Your task to perform on an android device: What is the news today? Image 0: 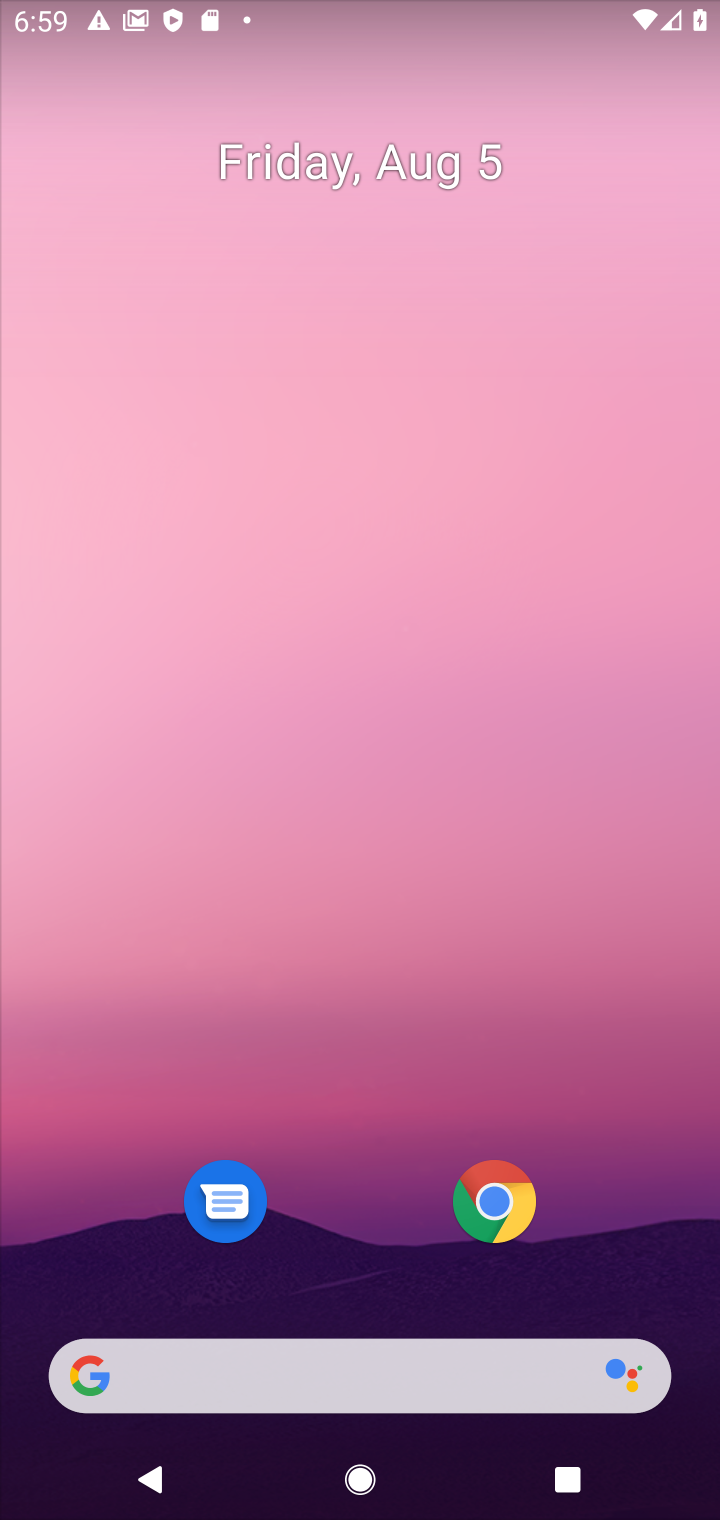
Step 0: press home button
Your task to perform on an android device: What is the news today? Image 1: 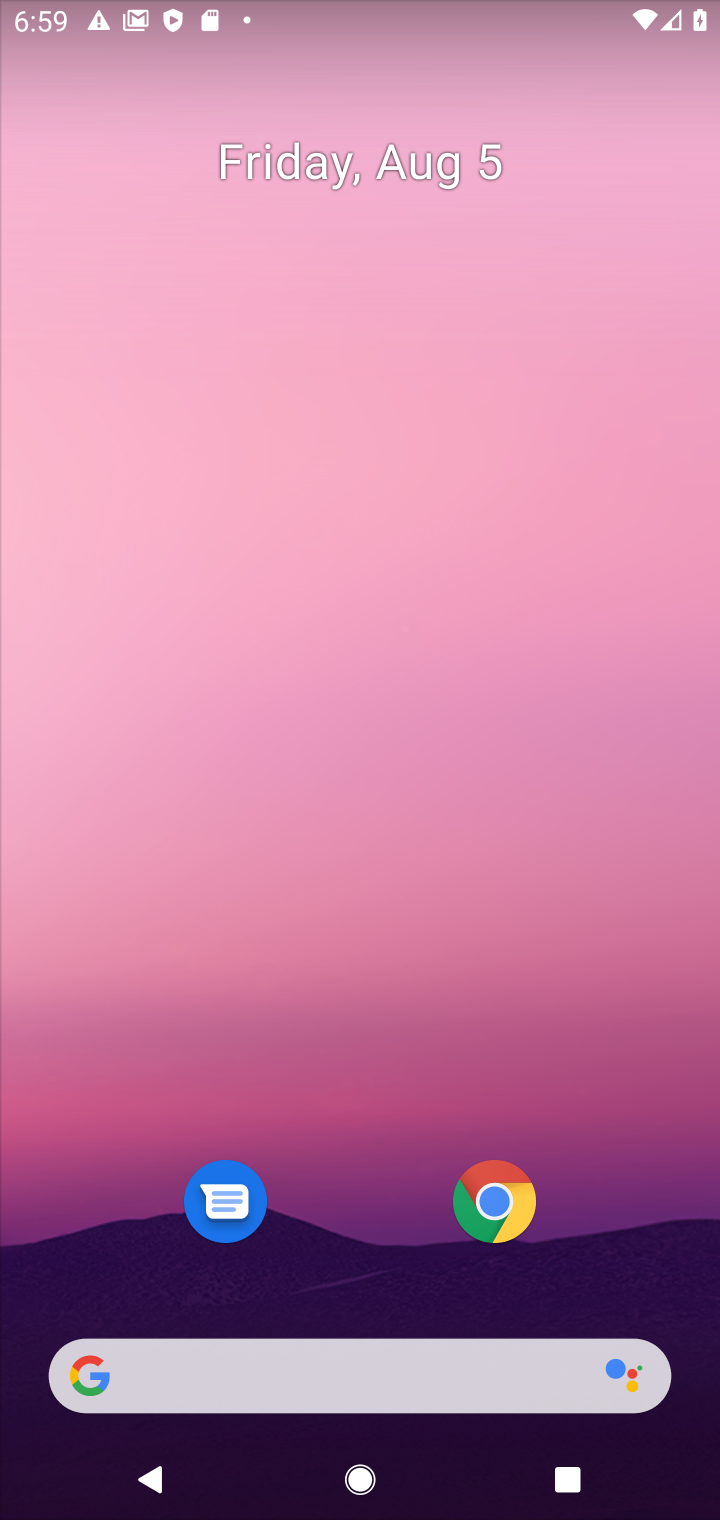
Step 1: drag from (355, 888) to (379, 652)
Your task to perform on an android device: What is the news today? Image 2: 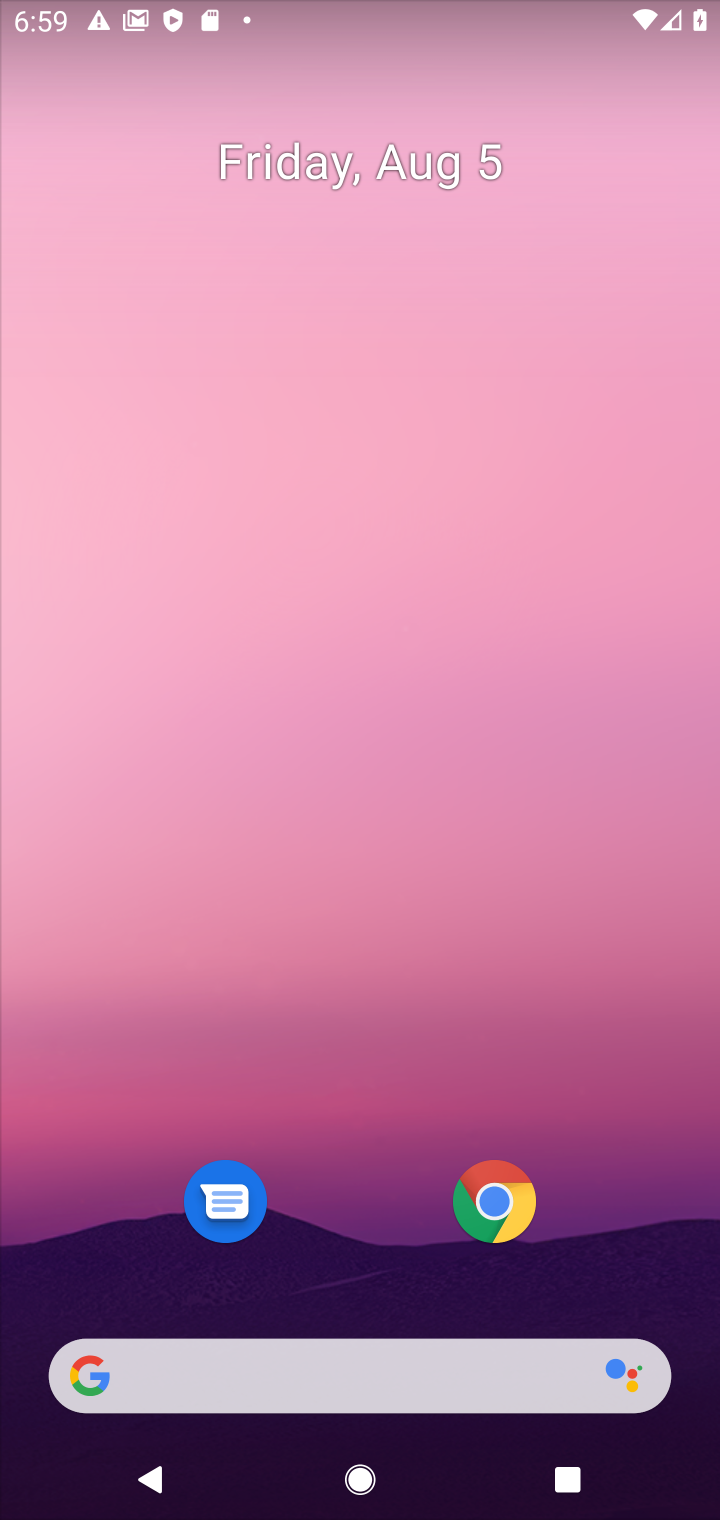
Step 2: click (294, 1394)
Your task to perform on an android device: What is the news today? Image 3: 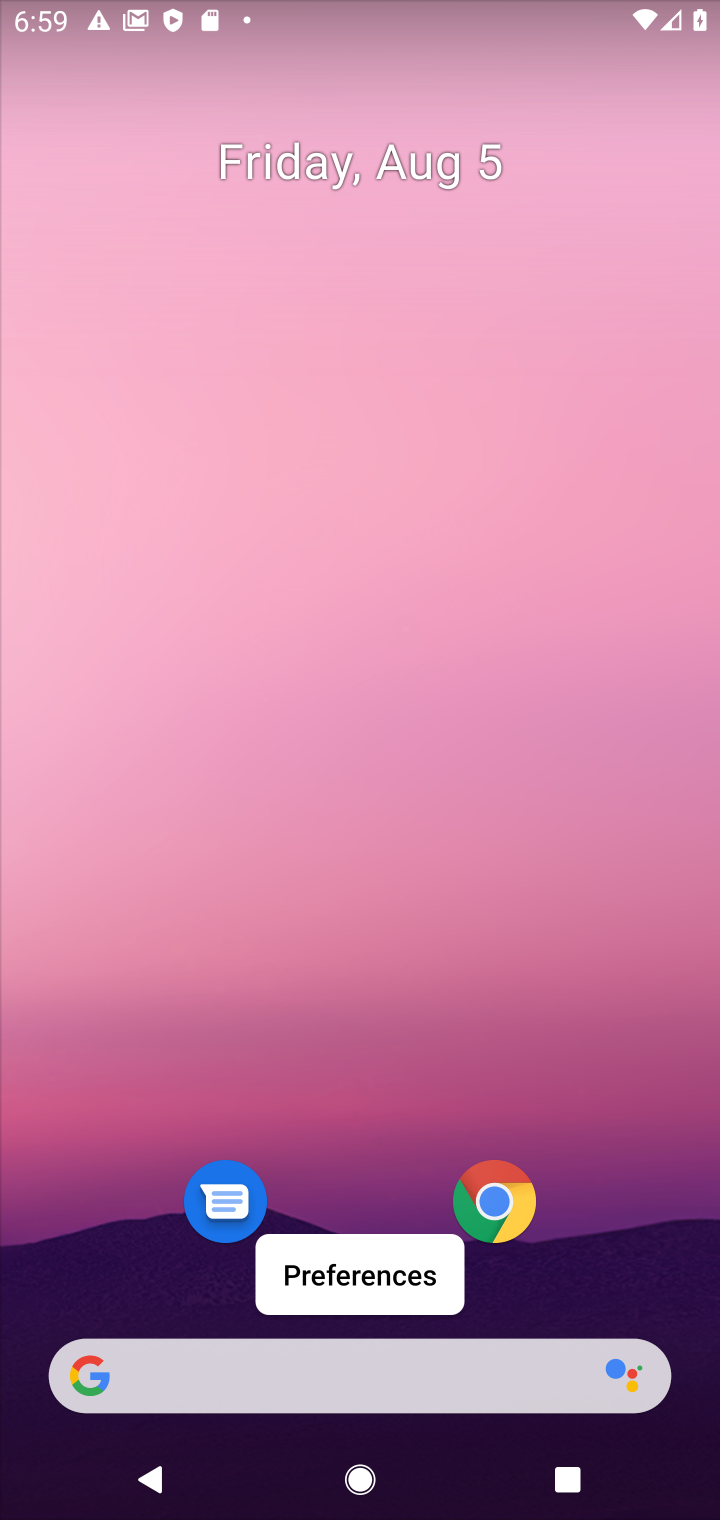
Step 3: click (368, 1013)
Your task to perform on an android device: What is the news today? Image 4: 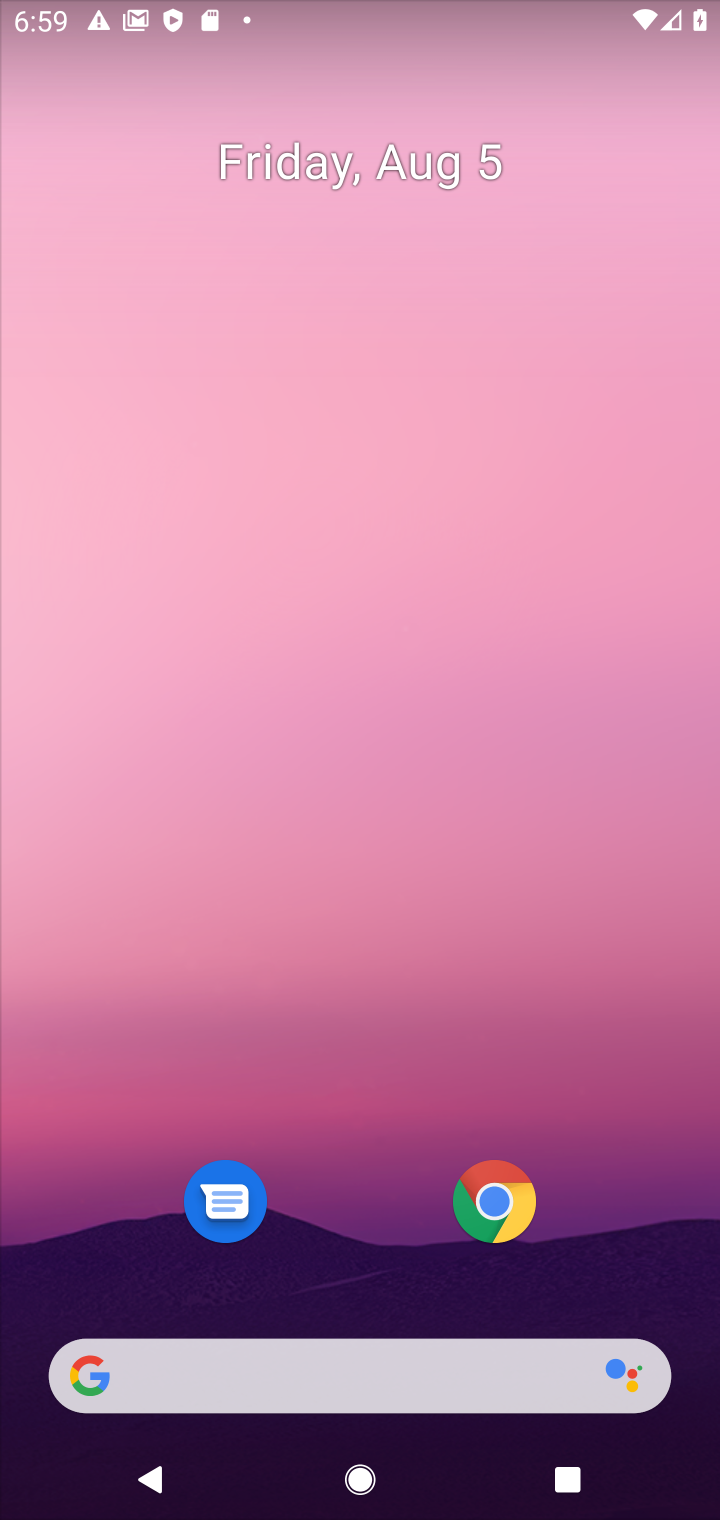
Step 4: drag from (323, 1408) to (435, 485)
Your task to perform on an android device: What is the news today? Image 5: 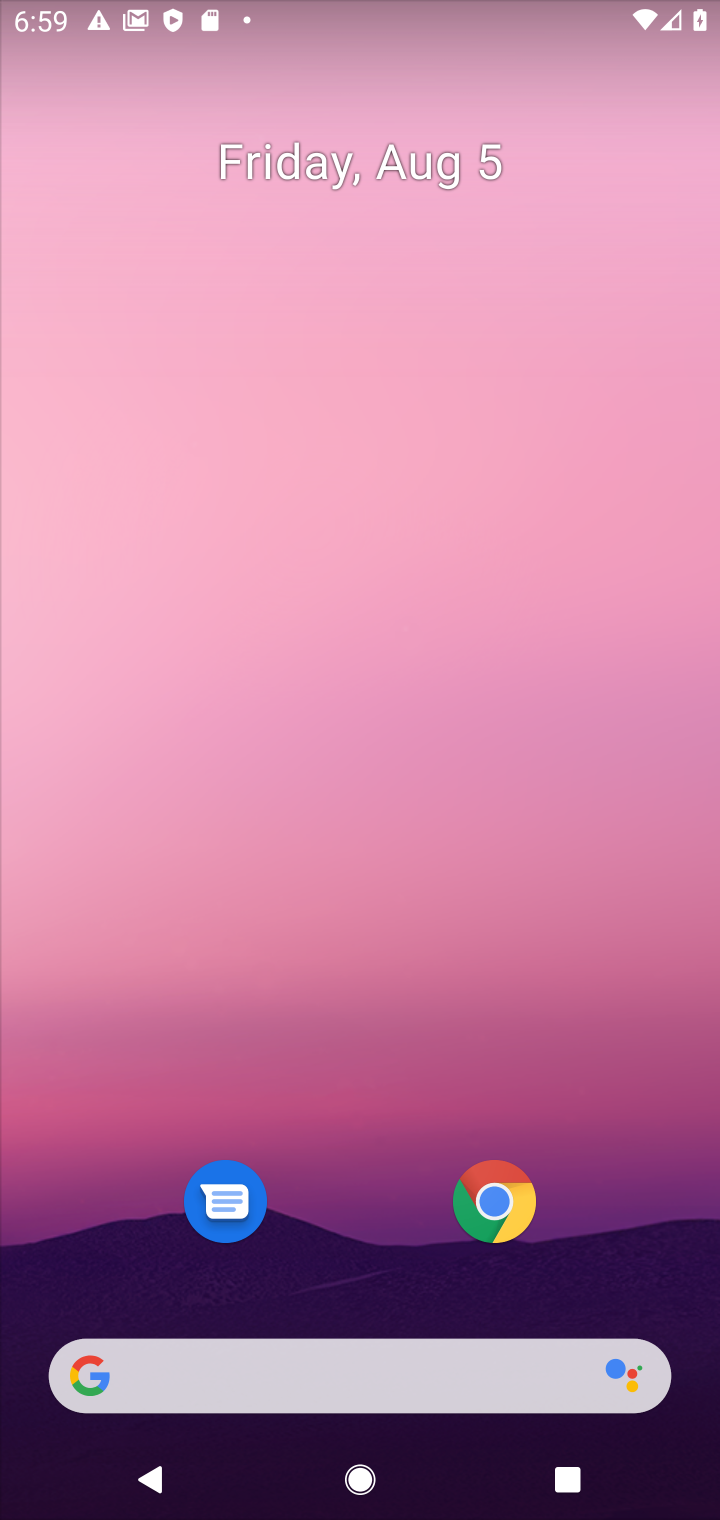
Step 5: drag from (386, 1396) to (449, 492)
Your task to perform on an android device: What is the news today? Image 6: 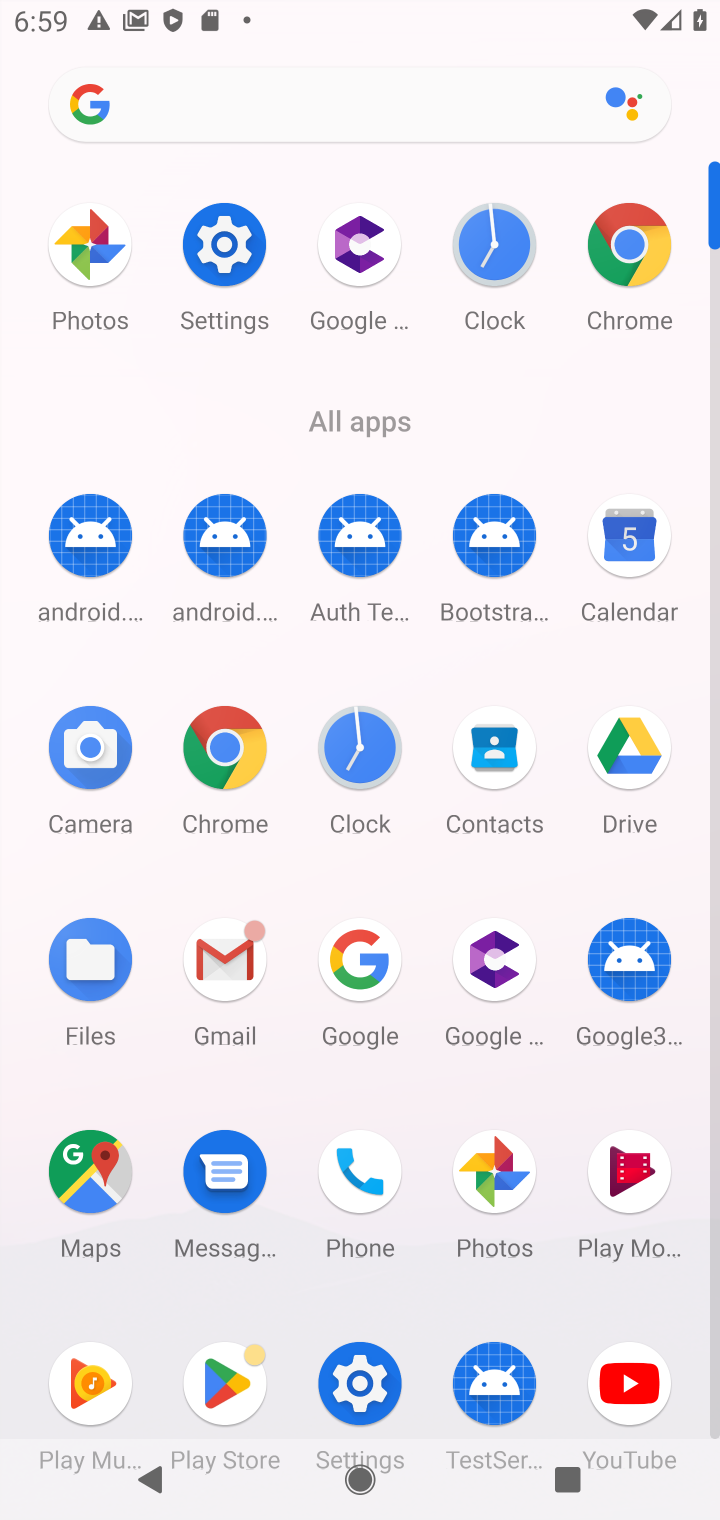
Step 6: click (258, 125)
Your task to perform on an android device: What is the news today? Image 7: 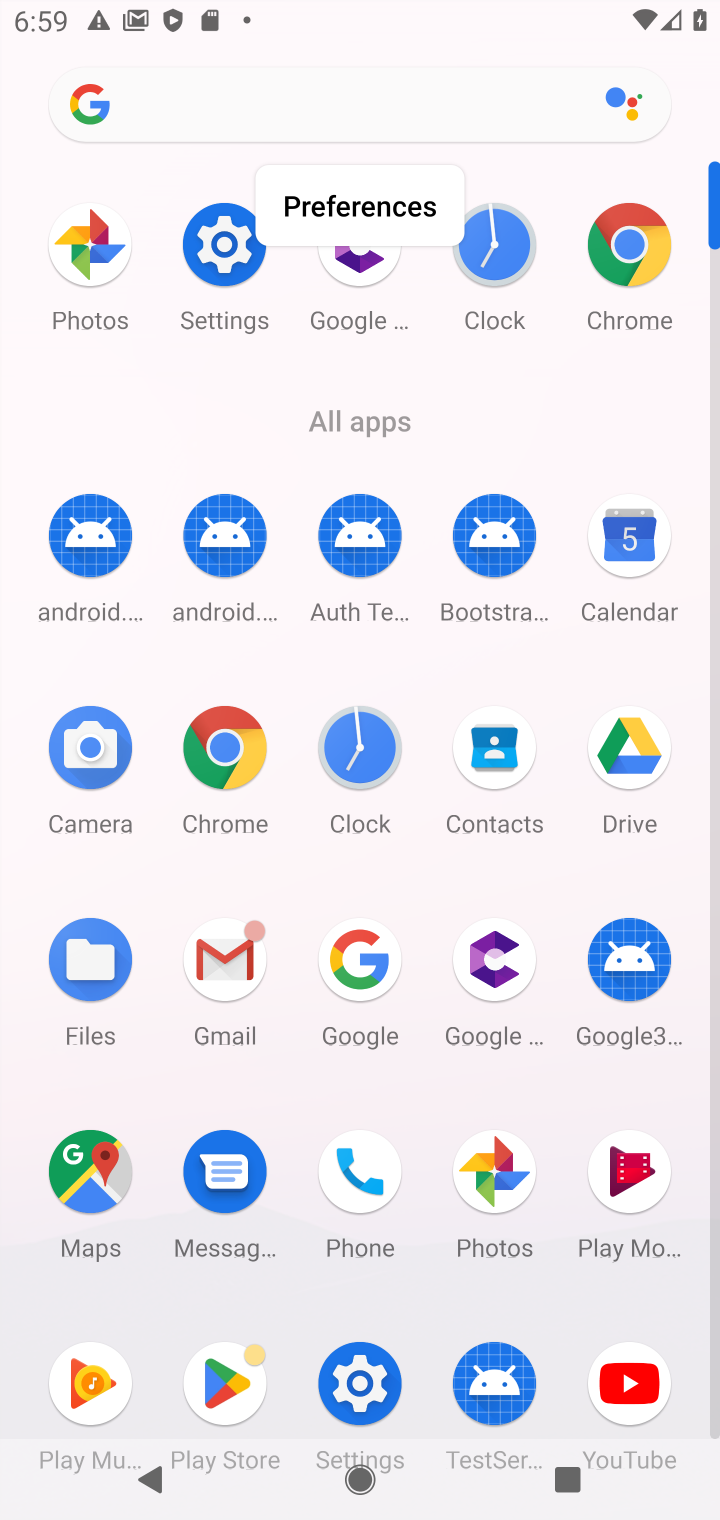
Step 7: click (222, 106)
Your task to perform on an android device: What is the news today? Image 8: 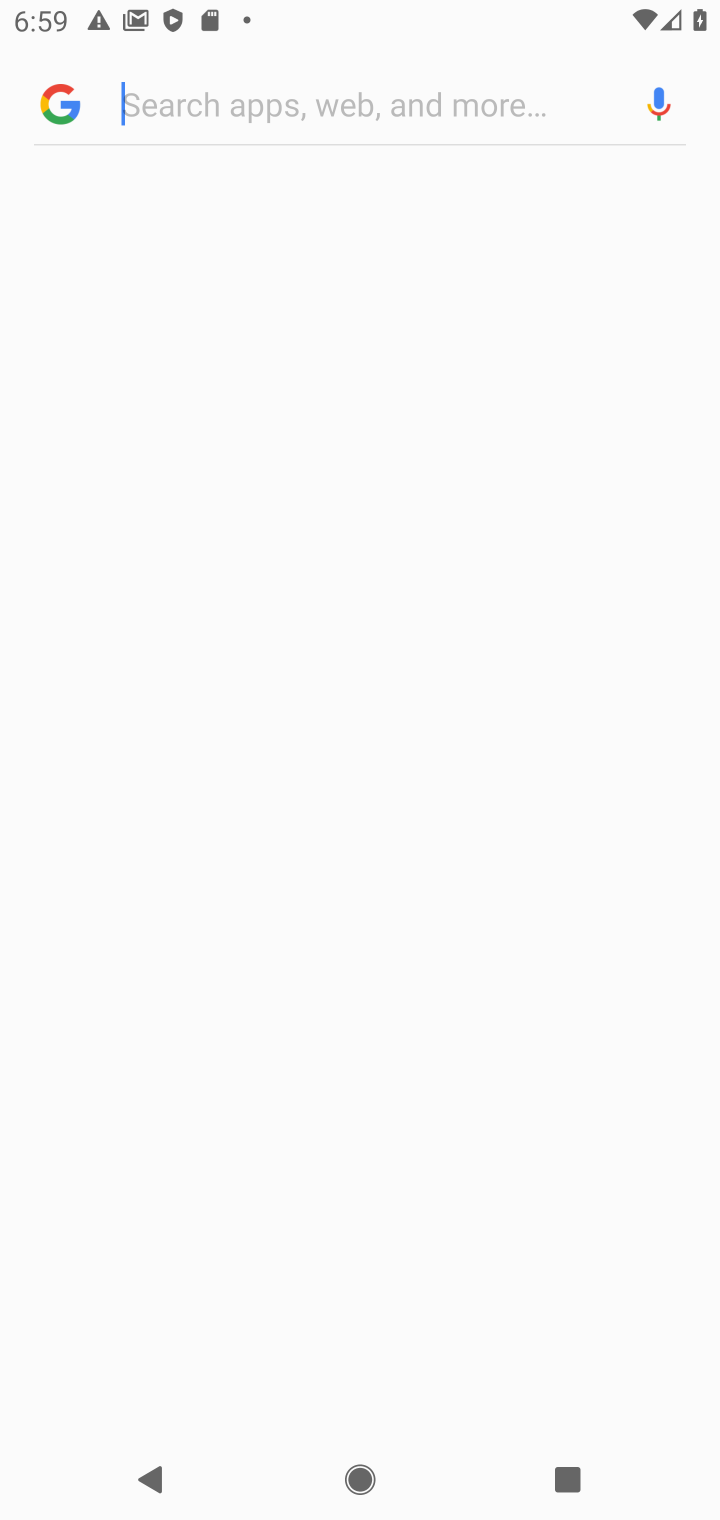
Step 8: click (204, 125)
Your task to perform on an android device: What is the news today? Image 9: 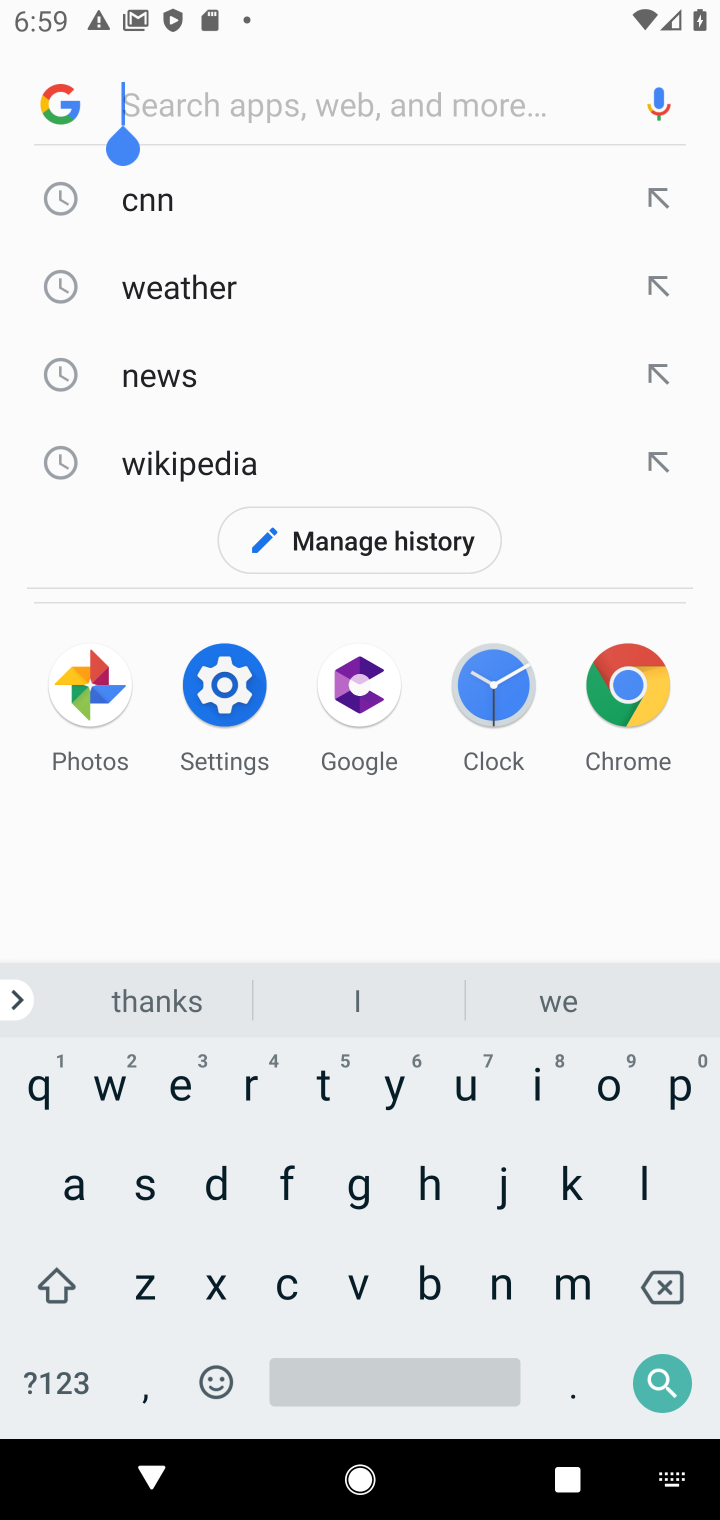
Step 9: click (184, 394)
Your task to perform on an android device: What is the news today? Image 10: 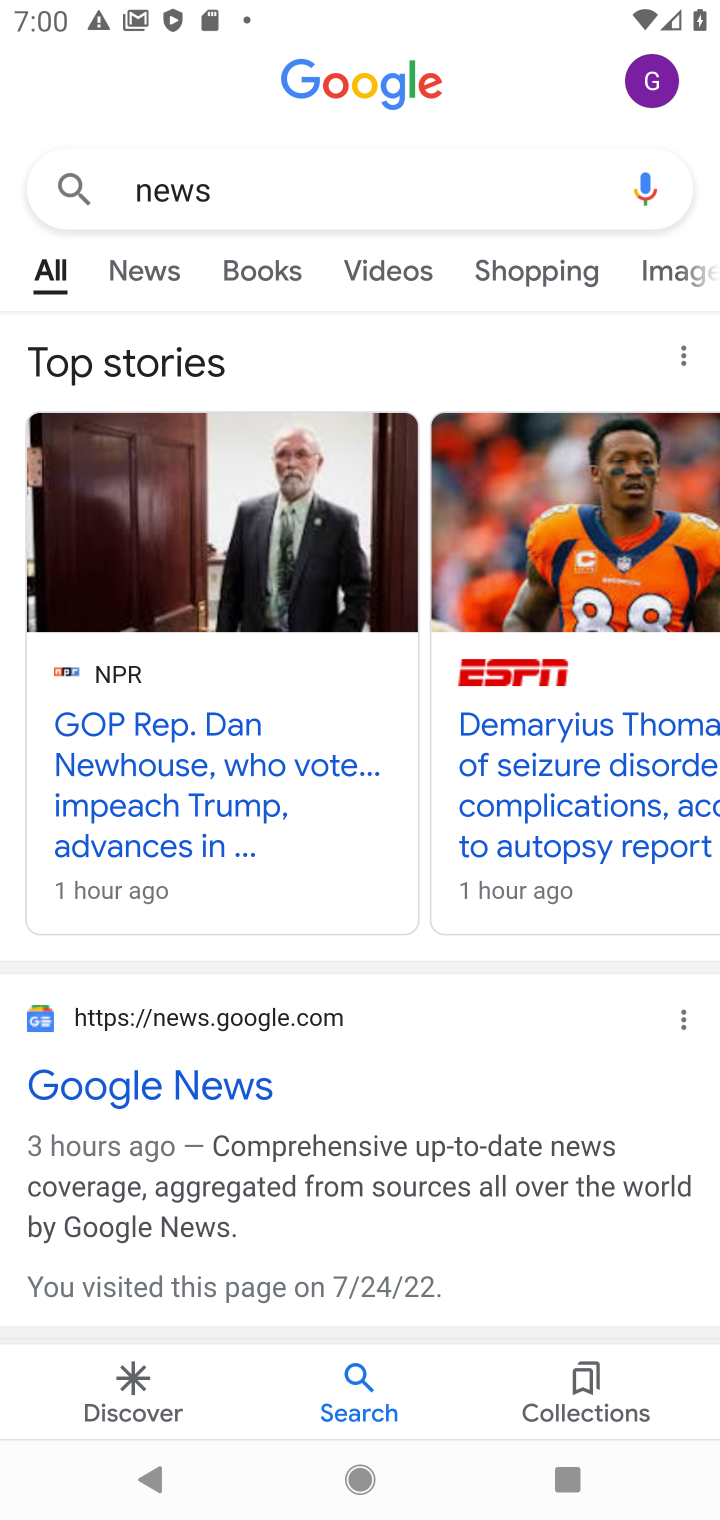
Step 10: task complete